Your task to perform on an android device: Open Wikipedia Image 0: 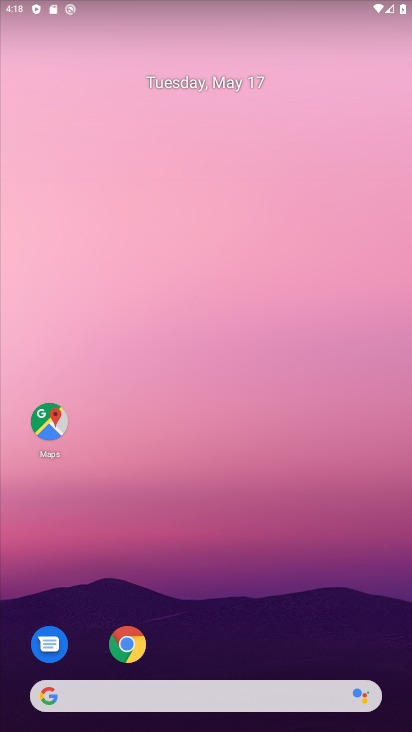
Step 0: click (124, 653)
Your task to perform on an android device: Open Wikipedia Image 1: 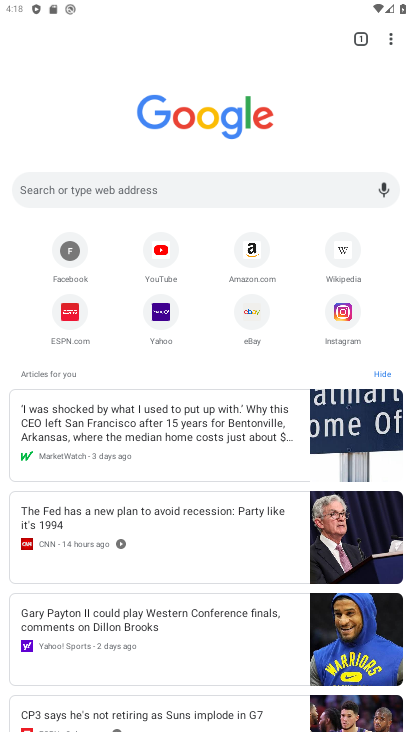
Step 1: click (345, 244)
Your task to perform on an android device: Open Wikipedia Image 2: 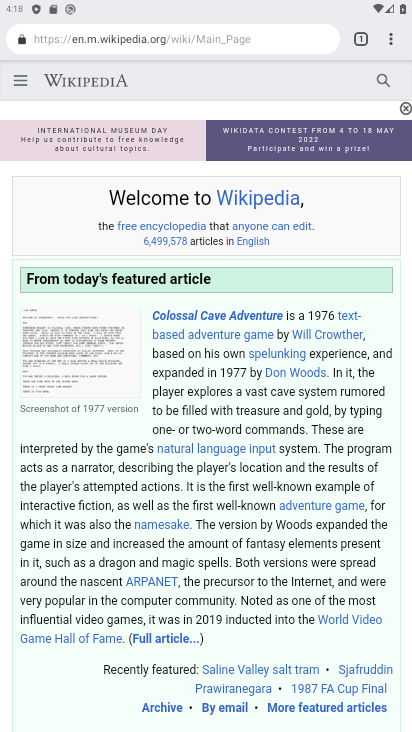
Step 2: task complete